Your task to perform on an android device: What is the speed of a jet? Image 0: 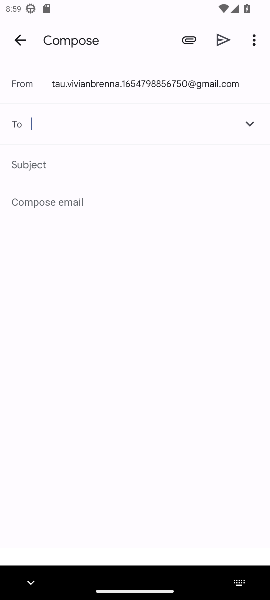
Step 0: press home button
Your task to perform on an android device: What is the speed of a jet? Image 1: 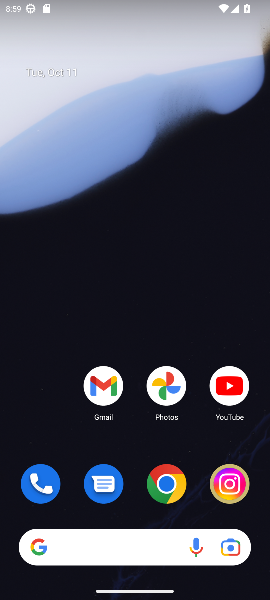
Step 1: click (166, 486)
Your task to perform on an android device: What is the speed of a jet? Image 2: 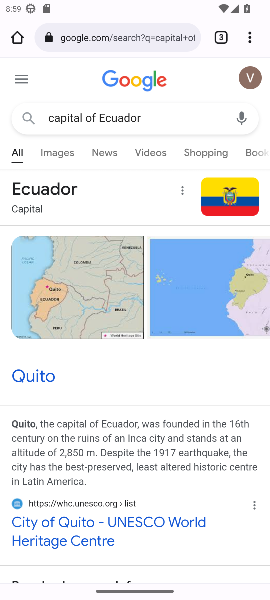
Step 2: click (155, 38)
Your task to perform on an android device: What is the speed of a jet? Image 3: 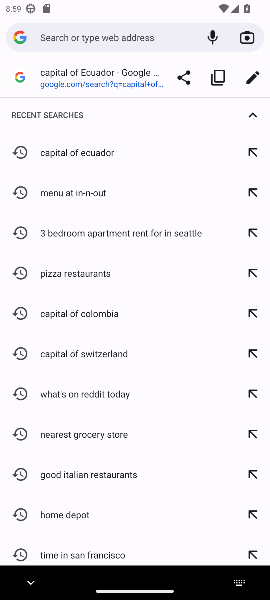
Step 3: type "speed of a jet"
Your task to perform on an android device: What is the speed of a jet? Image 4: 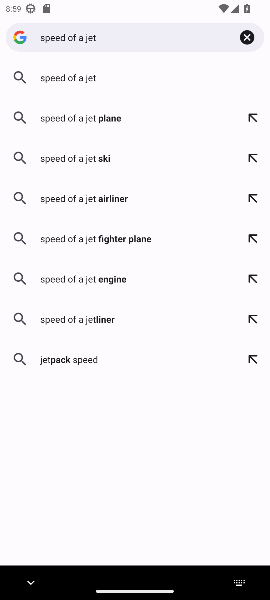
Step 4: click (75, 76)
Your task to perform on an android device: What is the speed of a jet? Image 5: 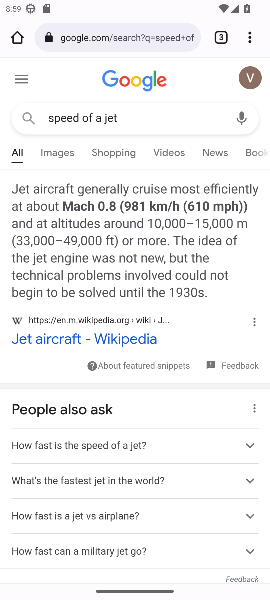
Step 5: task complete